Your task to perform on an android device: change notifications settings Image 0: 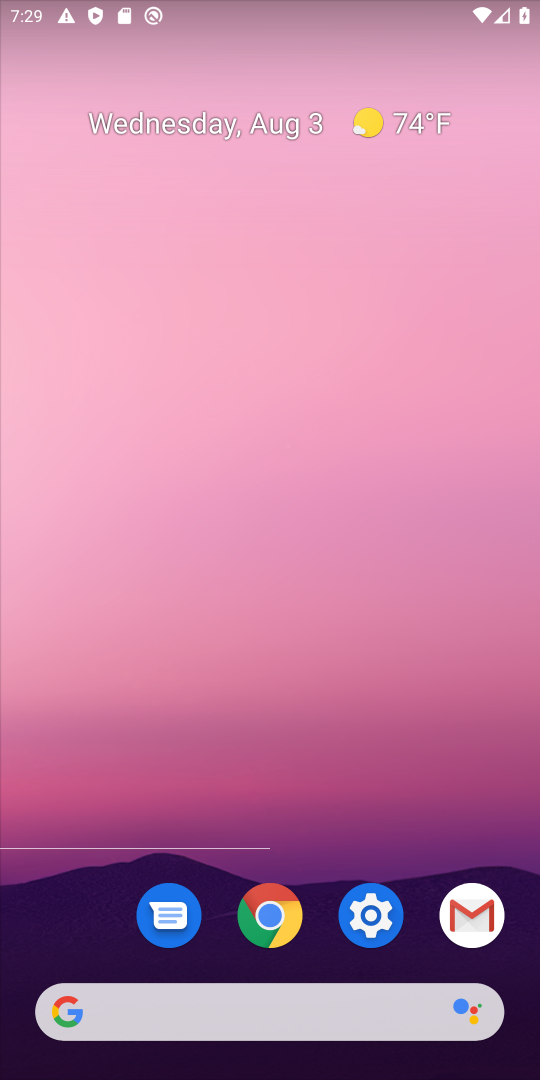
Step 0: press home button
Your task to perform on an android device: change notifications settings Image 1: 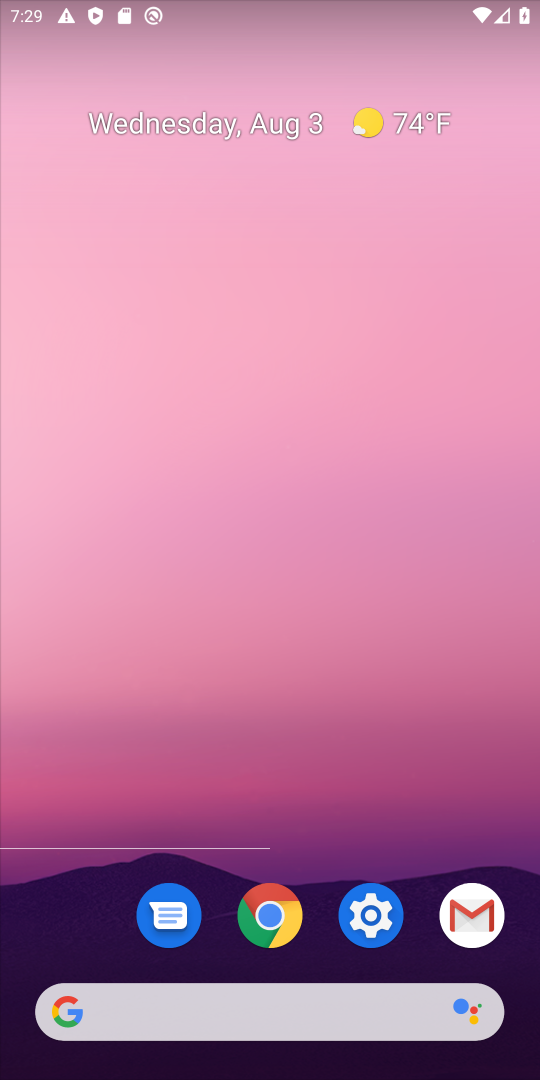
Step 1: drag from (362, 1018) to (224, 303)
Your task to perform on an android device: change notifications settings Image 2: 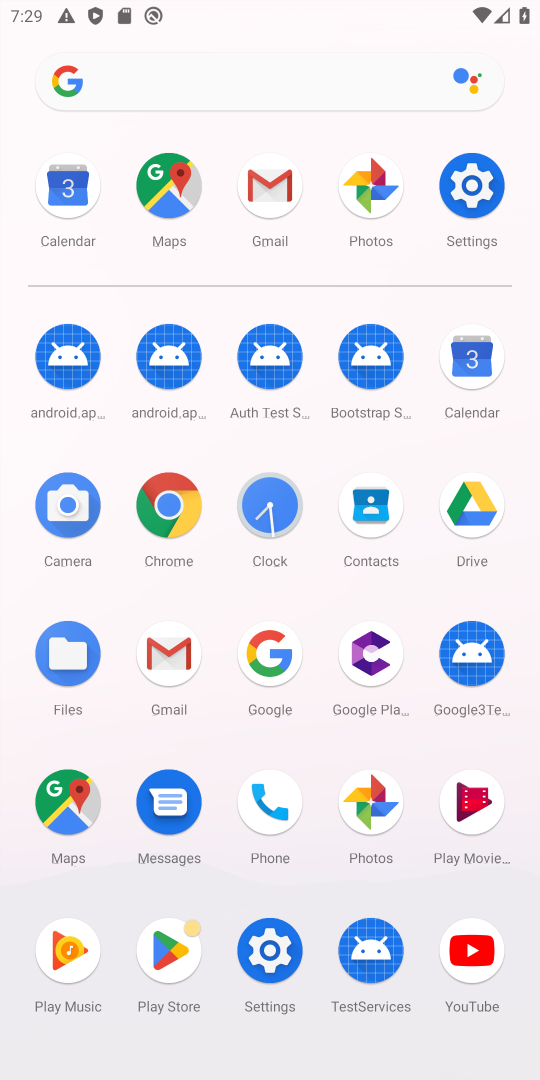
Step 2: click (489, 196)
Your task to perform on an android device: change notifications settings Image 3: 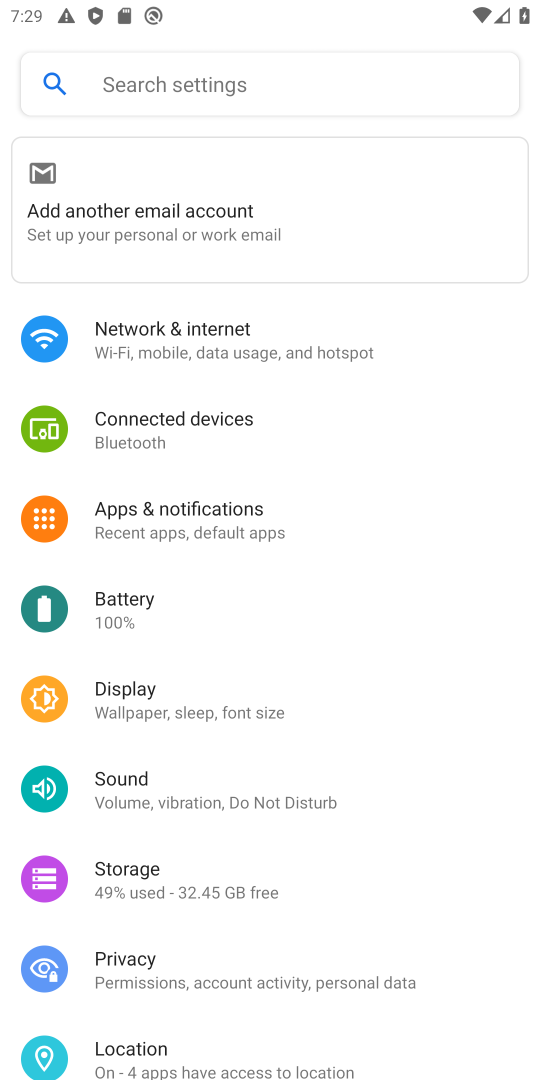
Step 3: click (165, 83)
Your task to perform on an android device: change notifications settings Image 4: 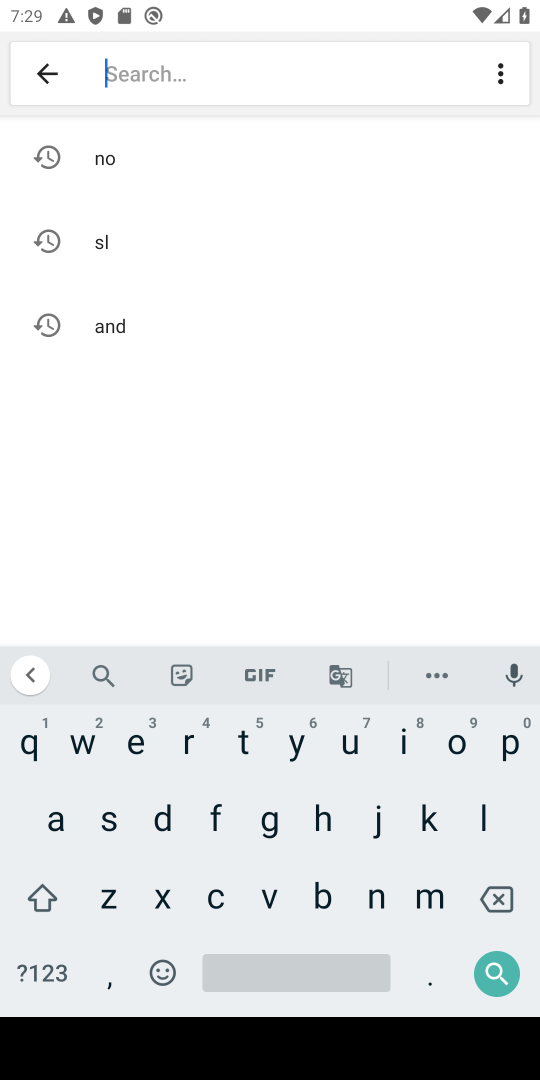
Step 4: click (127, 153)
Your task to perform on an android device: change notifications settings Image 5: 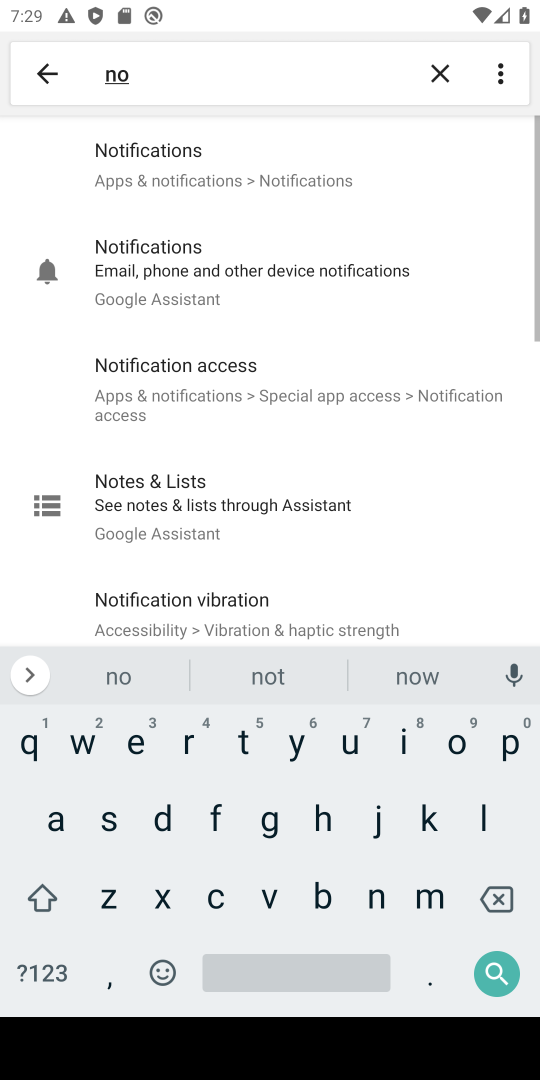
Step 5: click (148, 155)
Your task to perform on an android device: change notifications settings Image 6: 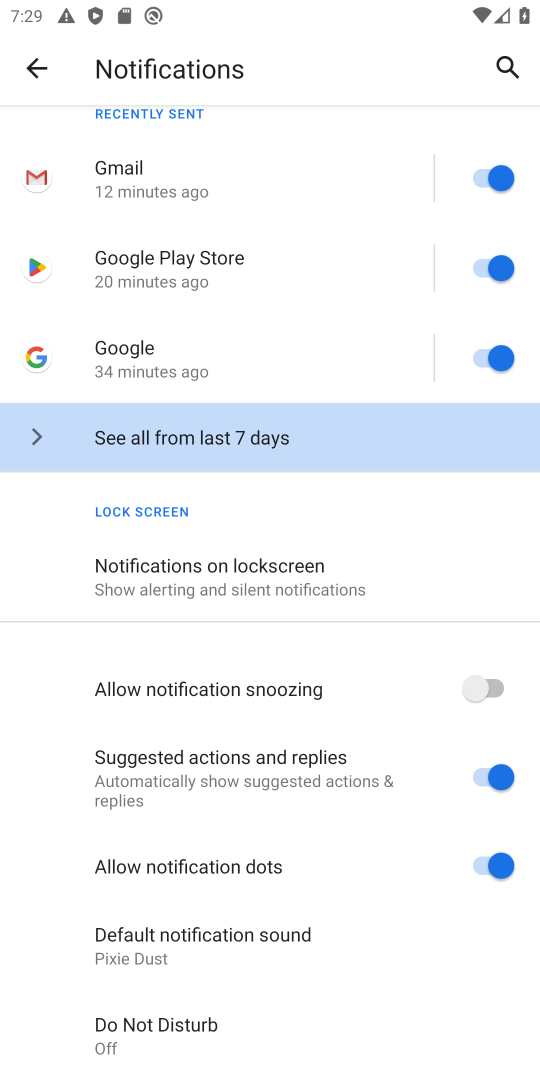
Step 6: click (226, 575)
Your task to perform on an android device: change notifications settings Image 7: 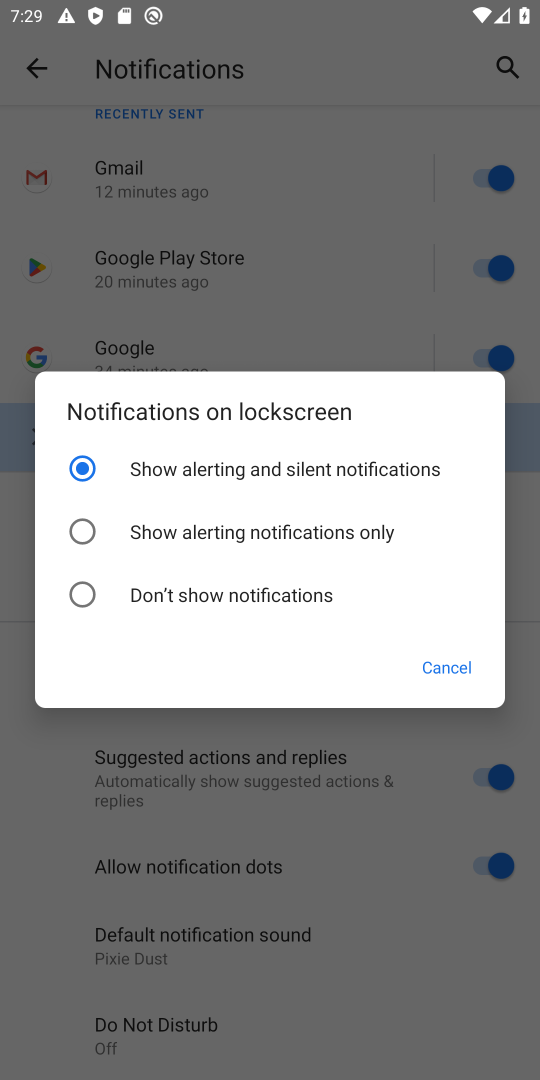
Step 7: click (186, 542)
Your task to perform on an android device: change notifications settings Image 8: 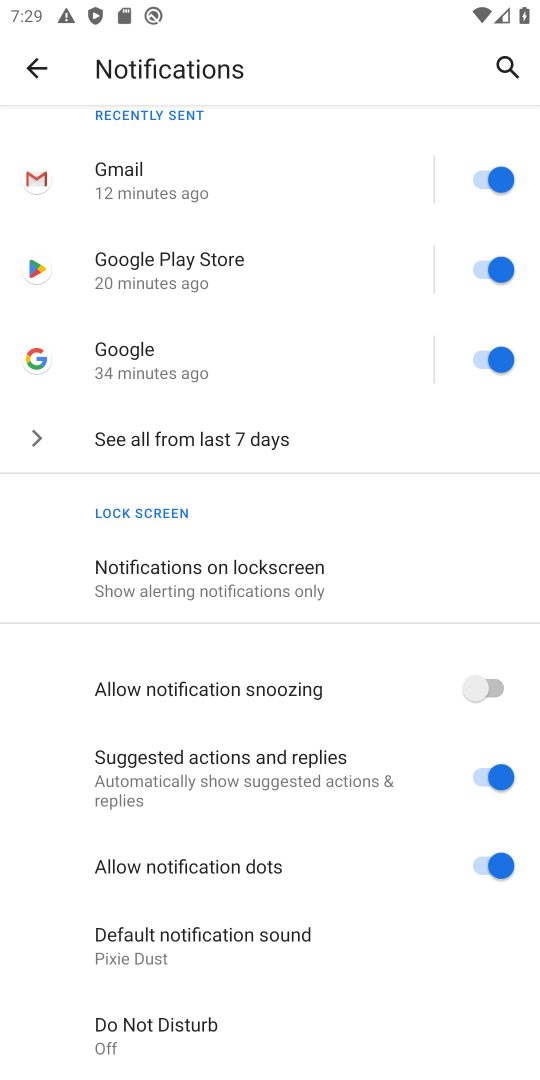
Step 8: task complete